Your task to perform on an android device: Go to ESPN.com Image 0: 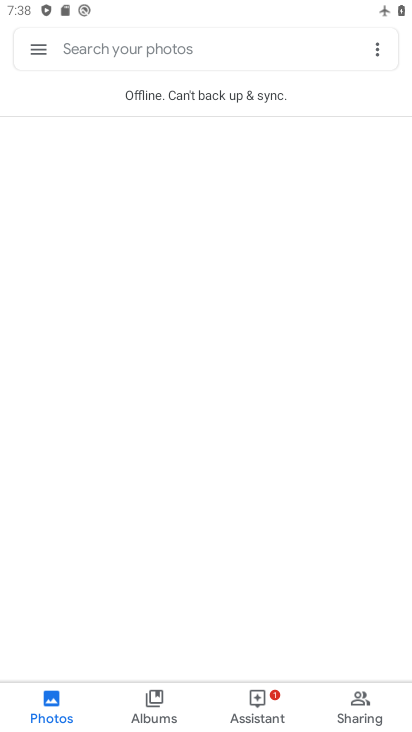
Step 0: drag from (217, 36) to (181, 370)
Your task to perform on an android device: Go to ESPN.com Image 1: 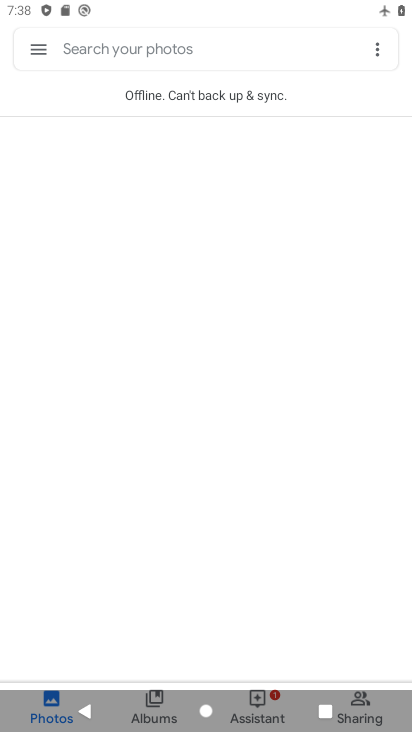
Step 1: drag from (332, 1) to (280, 455)
Your task to perform on an android device: Go to ESPN.com Image 2: 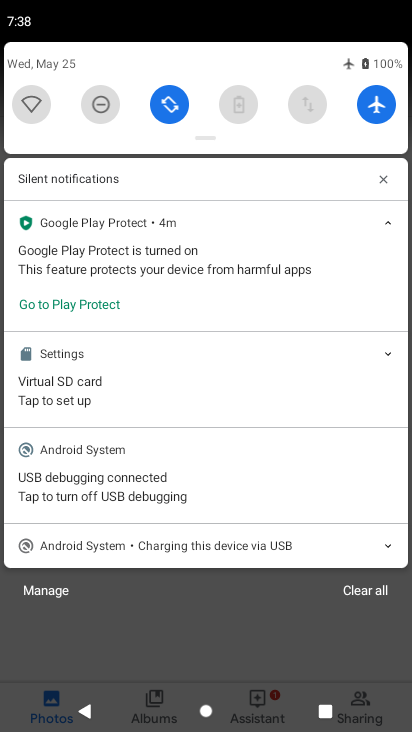
Step 2: click (373, 112)
Your task to perform on an android device: Go to ESPN.com Image 3: 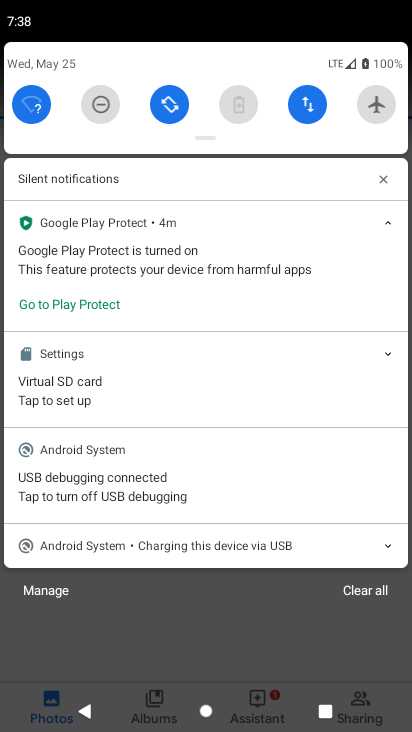
Step 3: drag from (143, 623) to (182, 354)
Your task to perform on an android device: Go to ESPN.com Image 4: 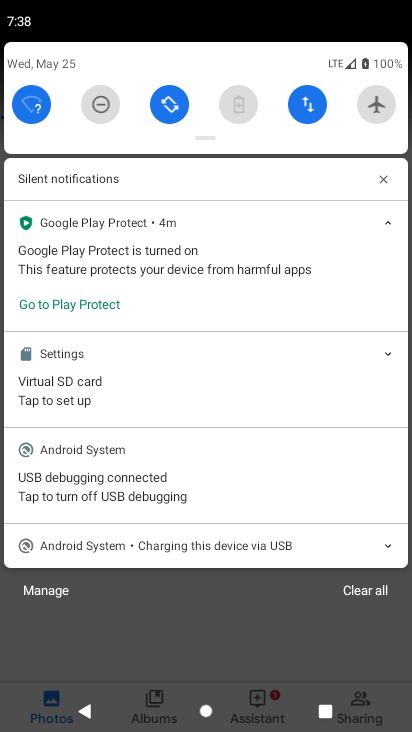
Step 4: click (361, 597)
Your task to perform on an android device: Go to ESPN.com Image 5: 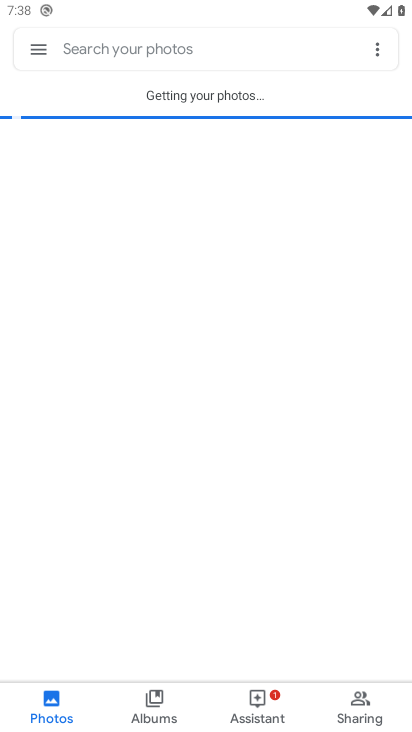
Step 5: press home button
Your task to perform on an android device: Go to ESPN.com Image 6: 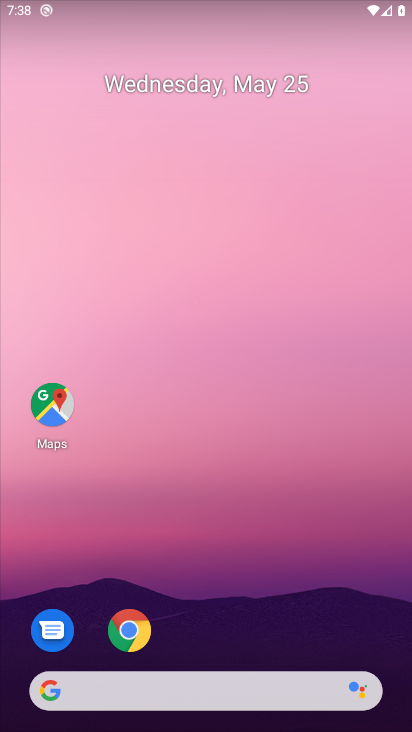
Step 6: click (124, 634)
Your task to perform on an android device: Go to ESPN.com Image 7: 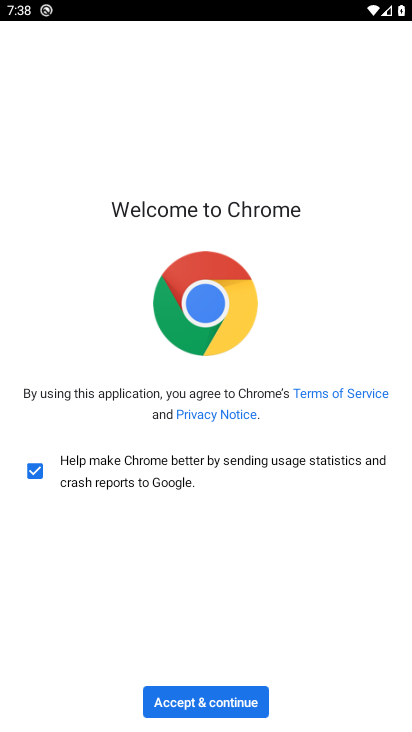
Step 7: click (194, 702)
Your task to perform on an android device: Go to ESPN.com Image 8: 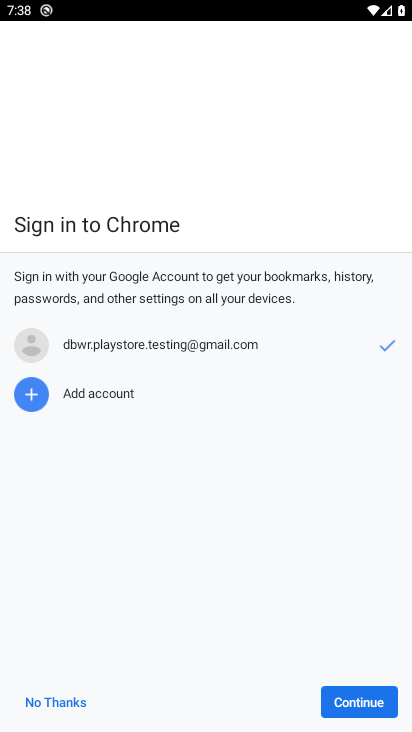
Step 8: click (372, 698)
Your task to perform on an android device: Go to ESPN.com Image 9: 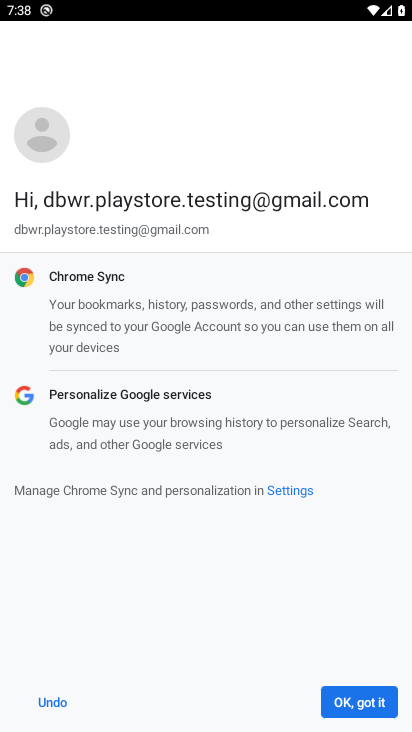
Step 9: click (372, 698)
Your task to perform on an android device: Go to ESPN.com Image 10: 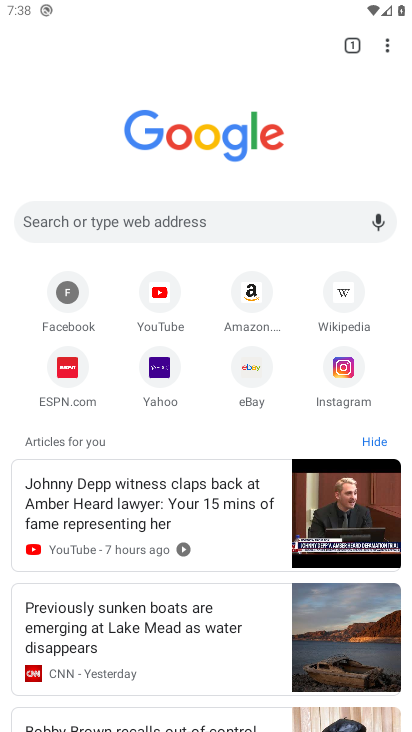
Step 10: click (56, 378)
Your task to perform on an android device: Go to ESPN.com Image 11: 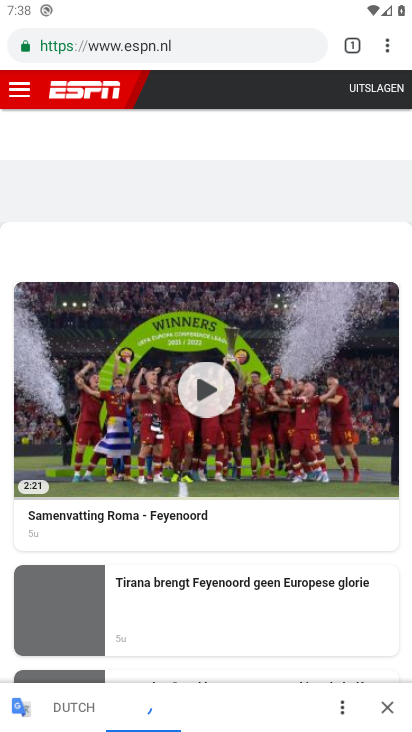
Step 11: task complete